Your task to perform on an android device: Open Chrome and go to the settings page Image 0: 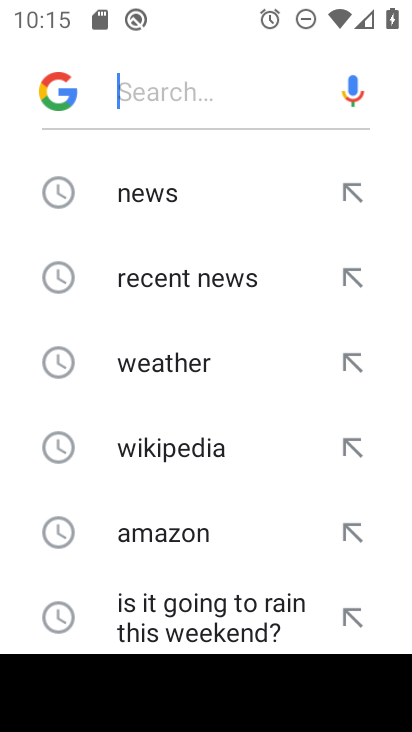
Step 0: press home button
Your task to perform on an android device: Open Chrome and go to the settings page Image 1: 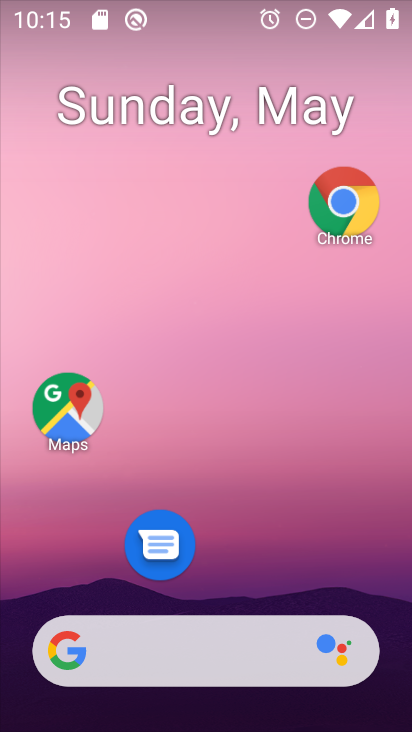
Step 1: click (344, 201)
Your task to perform on an android device: Open Chrome and go to the settings page Image 2: 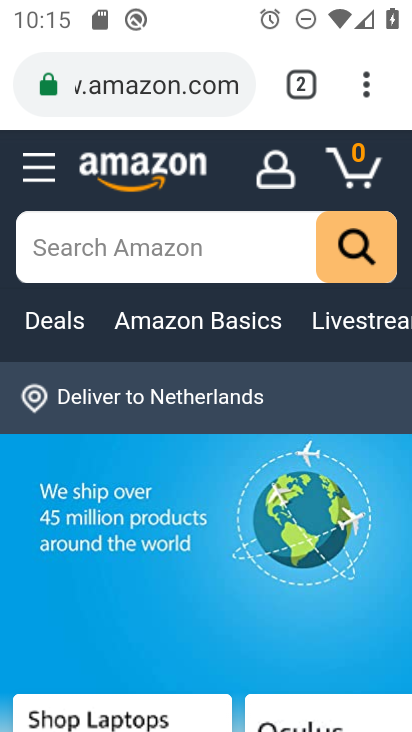
Step 2: click (363, 95)
Your task to perform on an android device: Open Chrome and go to the settings page Image 3: 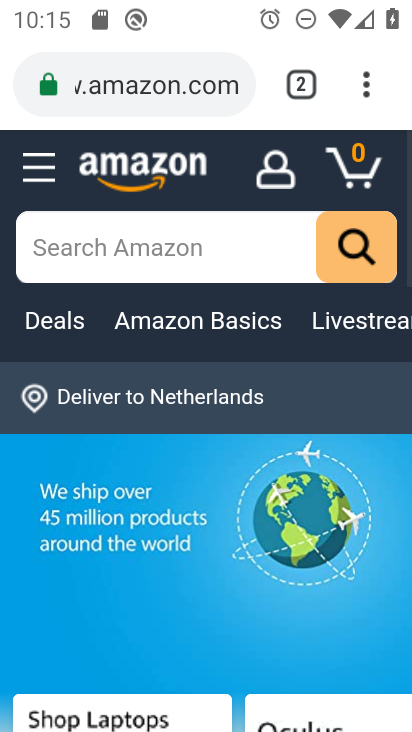
Step 3: click (363, 95)
Your task to perform on an android device: Open Chrome and go to the settings page Image 4: 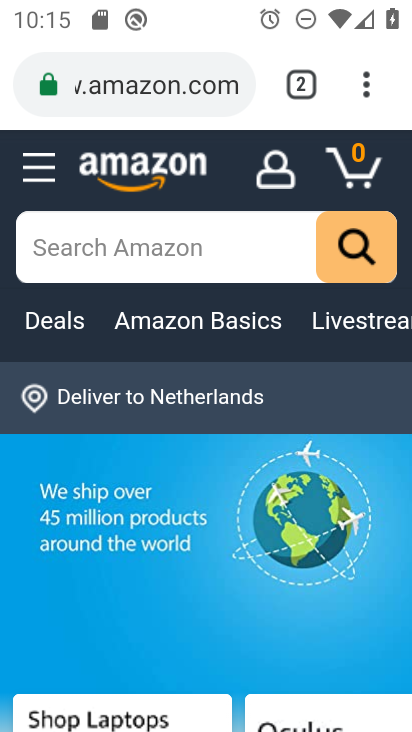
Step 4: click (361, 97)
Your task to perform on an android device: Open Chrome and go to the settings page Image 5: 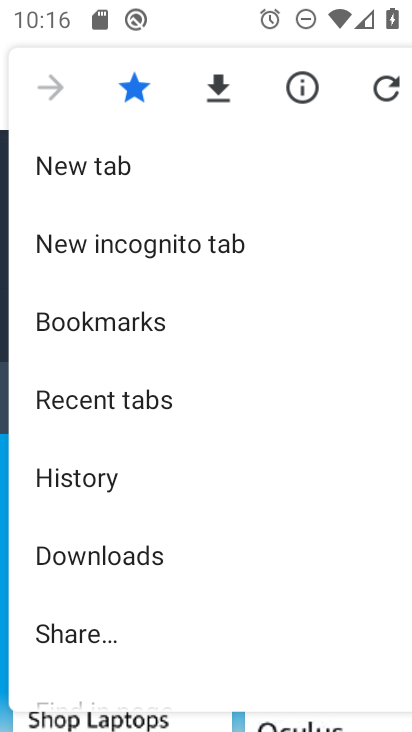
Step 5: drag from (175, 635) to (190, 350)
Your task to perform on an android device: Open Chrome and go to the settings page Image 6: 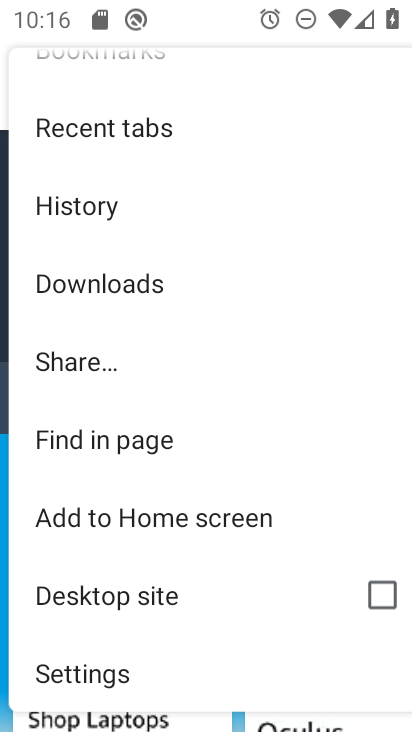
Step 6: click (87, 679)
Your task to perform on an android device: Open Chrome and go to the settings page Image 7: 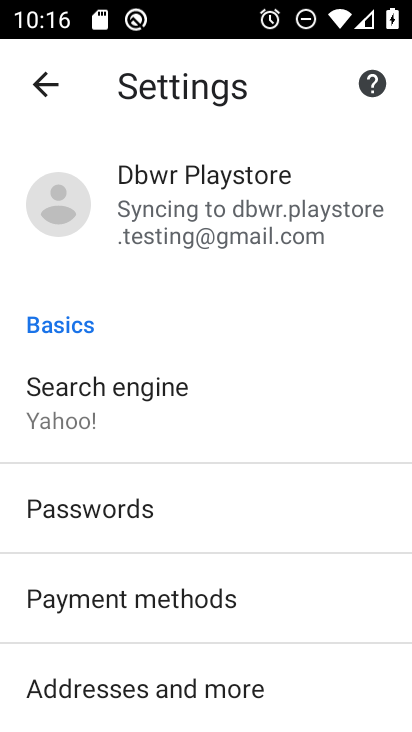
Step 7: task complete